Your task to perform on an android device: Open my contact list Image 0: 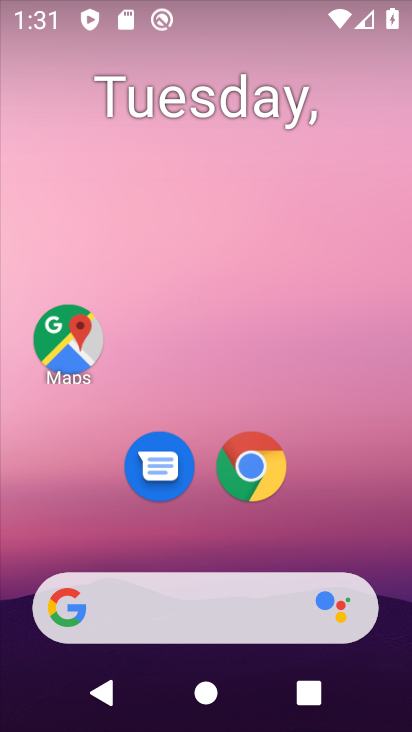
Step 0: drag from (365, 557) to (381, 166)
Your task to perform on an android device: Open my contact list Image 1: 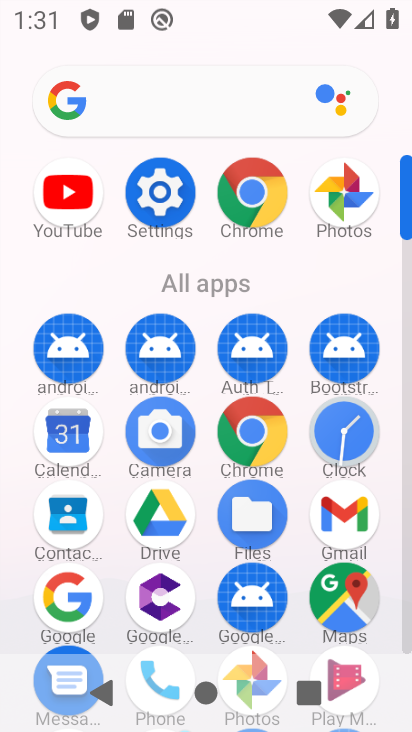
Step 1: click (67, 520)
Your task to perform on an android device: Open my contact list Image 2: 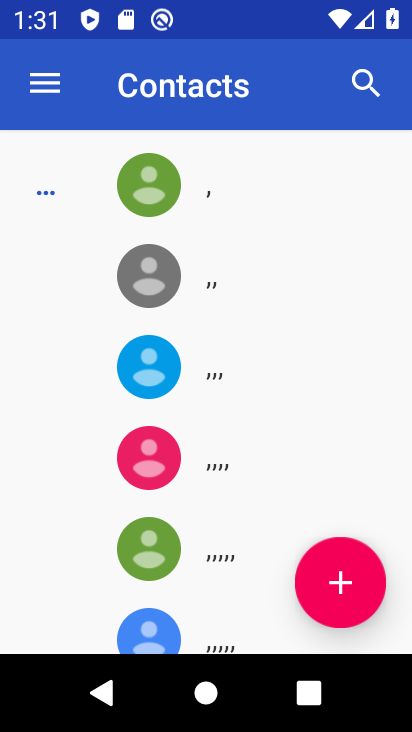
Step 2: task complete